Your task to perform on an android device: make emails show in primary in the gmail app Image 0: 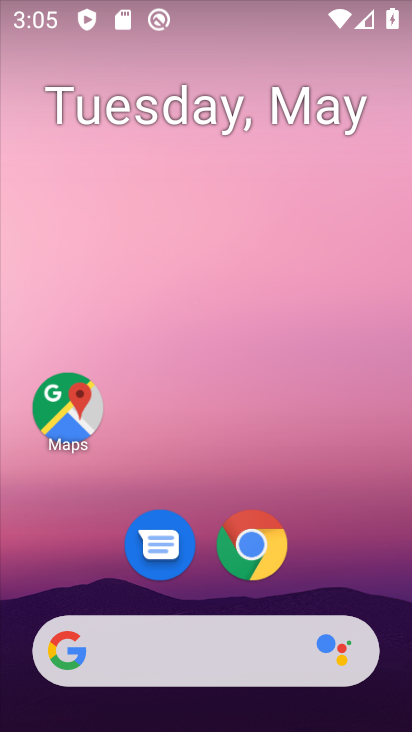
Step 0: drag from (212, 619) to (238, 268)
Your task to perform on an android device: make emails show in primary in the gmail app Image 1: 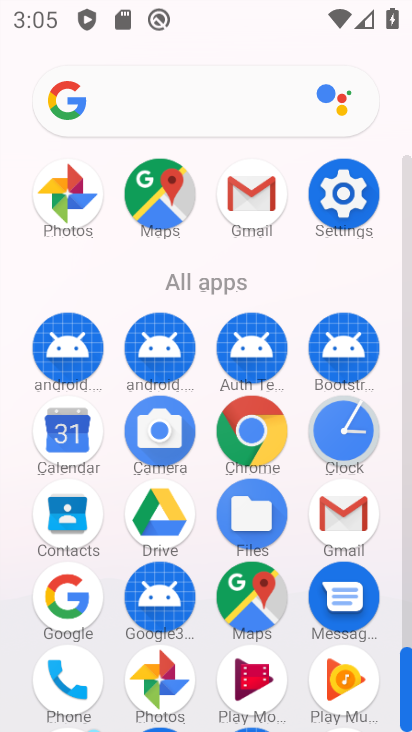
Step 1: click (240, 184)
Your task to perform on an android device: make emails show in primary in the gmail app Image 2: 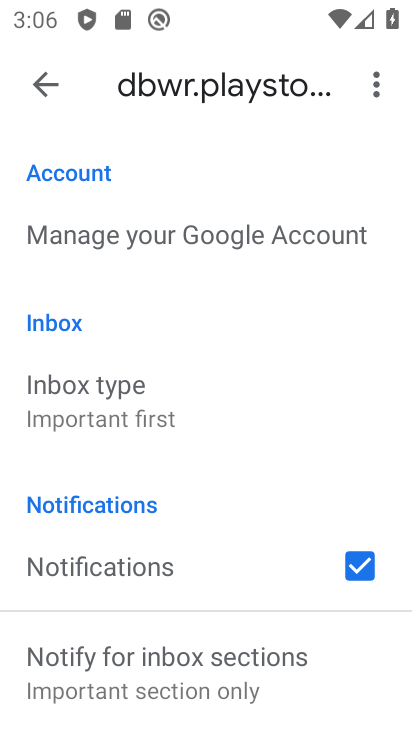
Step 2: click (129, 407)
Your task to perform on an android device: make emails show in primary in the gmail app Image 3: 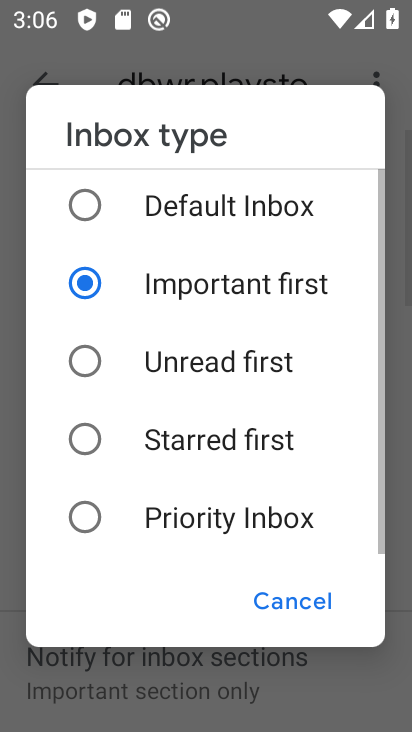
Step 3: click (194, 215)
Your task to perform on an android device: make emails show in primary in the gmail app Image 4: 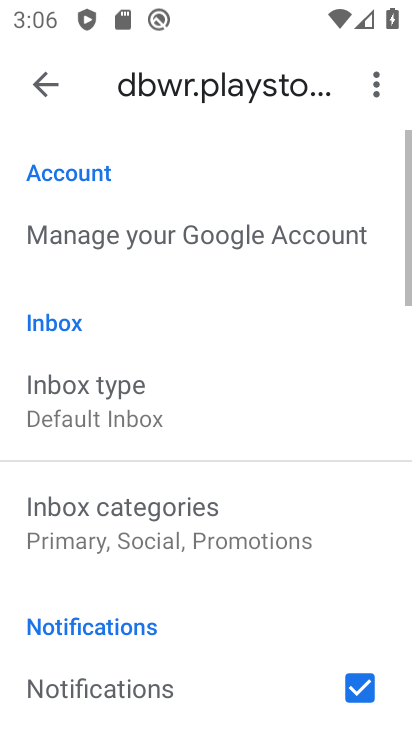
Step 4: click (173, 540)
Your task to perform on an android device: make emails show in primary in the gmail app Image 5: 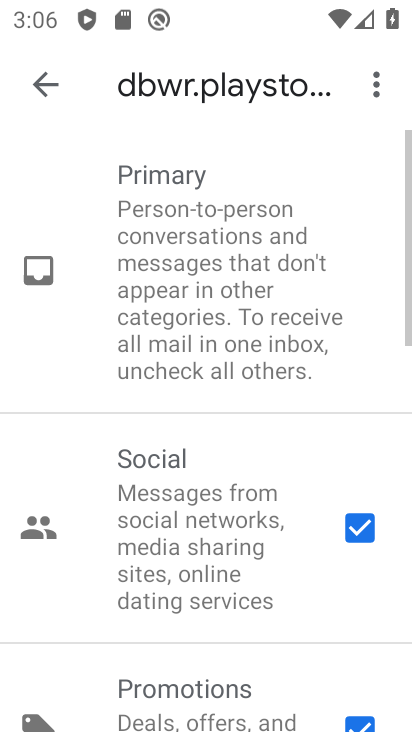
Step 5: click (349, 528)
Your task to perform on an android device: make emails show in primary in the gmail app Image 6: 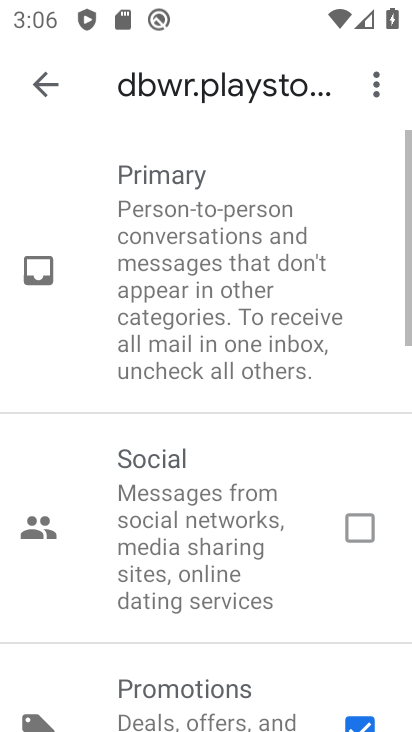
Step 6: click (362, 729)
Your task to perform on an android device: make emails show in primary in the gmail app Image 7: 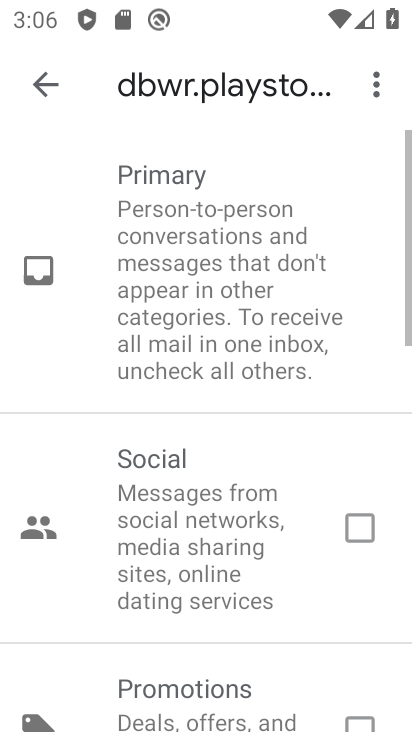
Step 7: click (45, 89)
Your task to perform on an android device: make emails show in primary in the gmail app Image 8: 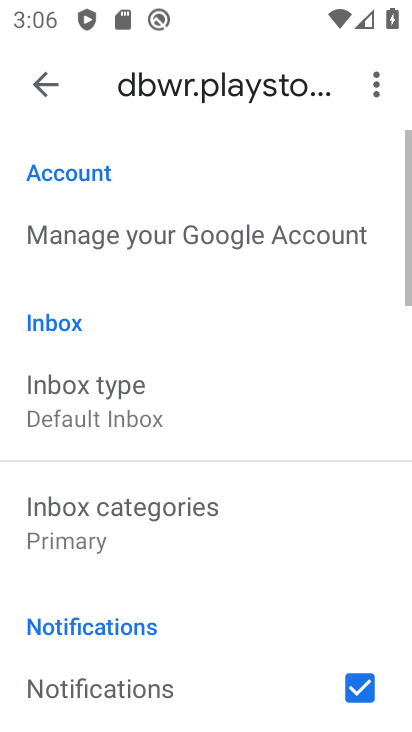
Step 8: task complete